Your task to perform on an android device: Go to Reddit.com Image 0: 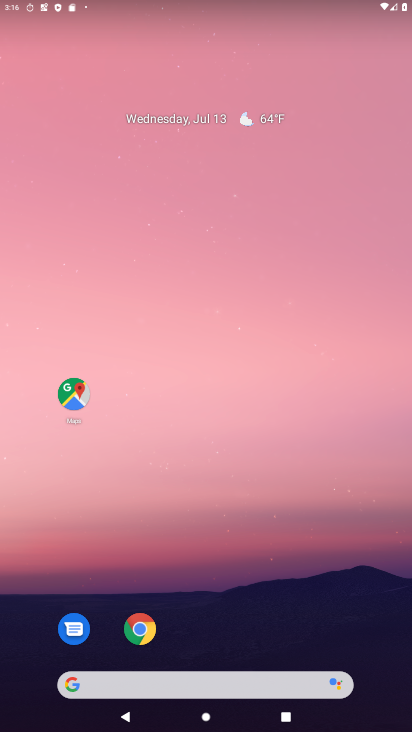
Step 0: drag from (292, 693) to (280, 85)
Your task to perform on an android device: Go to Reddit.com Image 1: 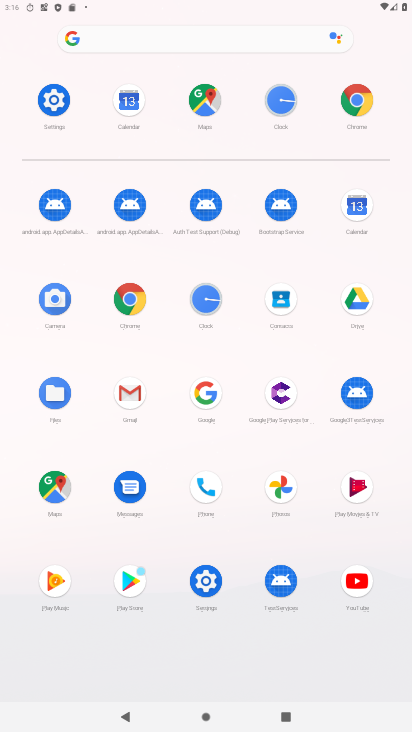
Step 1: click (127, 300)
Your task to perform on an android device: Go to Reddit.com Image 2: 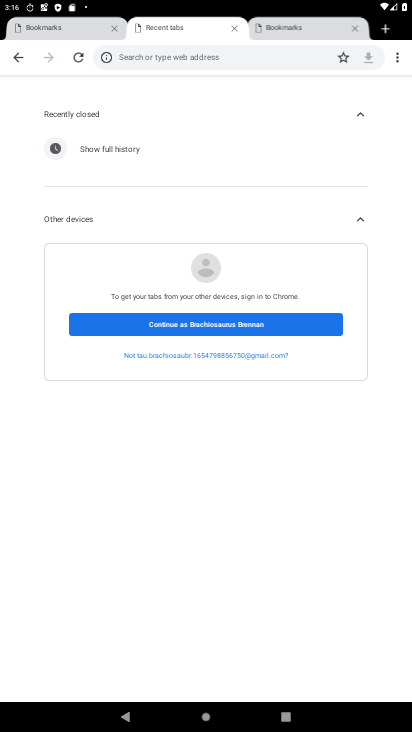
Step 2: click (75, 31)
Your task to perform on an android device: Go to Reddit.com Image 3: 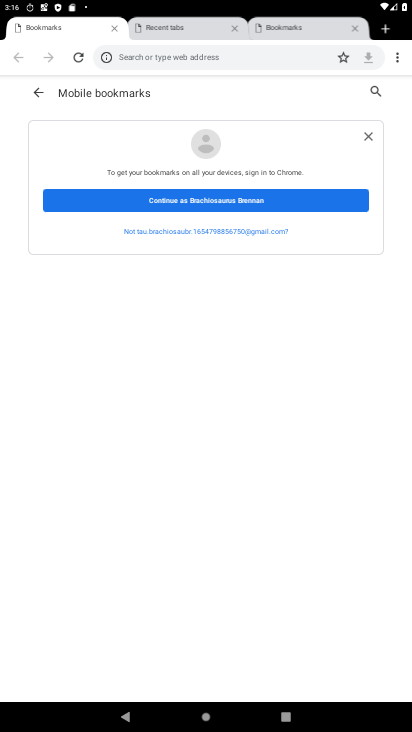
Step 3: click (206, 58)
Your task to perform on an android device: Go to Reddit.com Image 4: 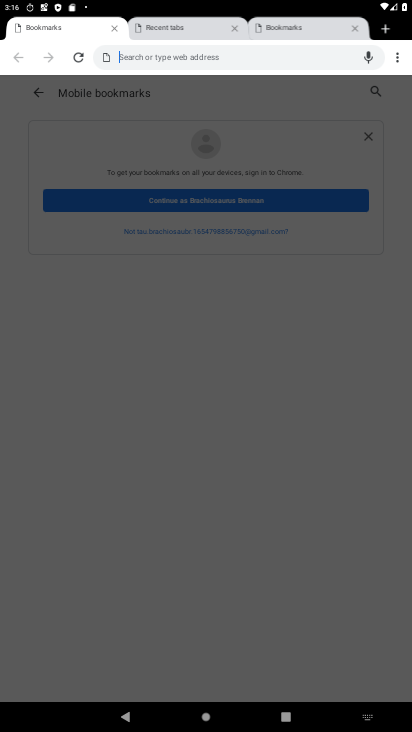
Step 4: type "reddit.com"
Your task to perform on an android device: Go to Reddit.com Image 5: 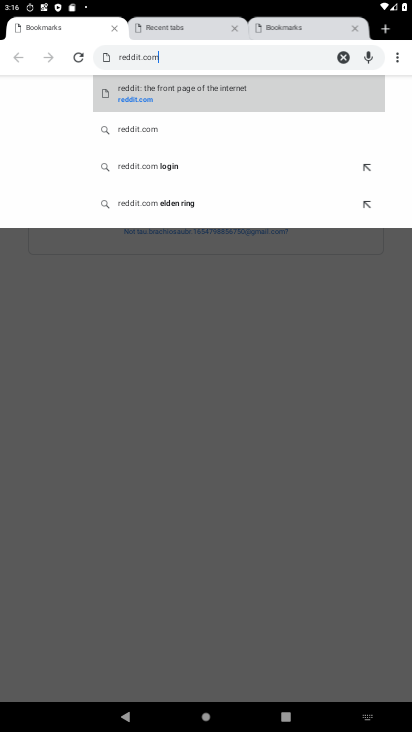
Step 5: click (189, 100)
Your task to perform on an android device: Go to Reddit.com Image 6: 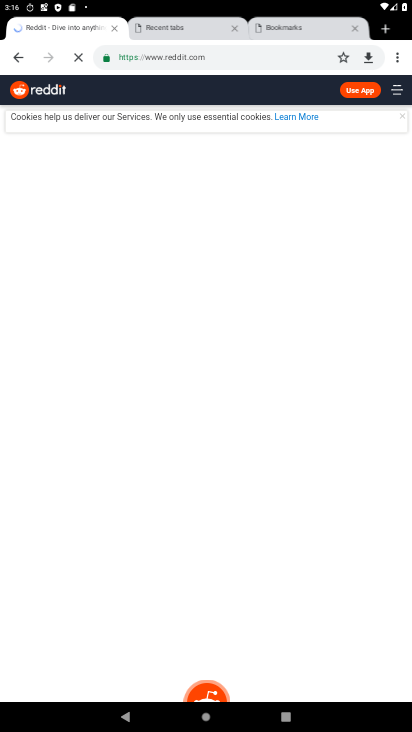
Step 6: task complete